Your task to perform on an android device: See recent photos Image 0: 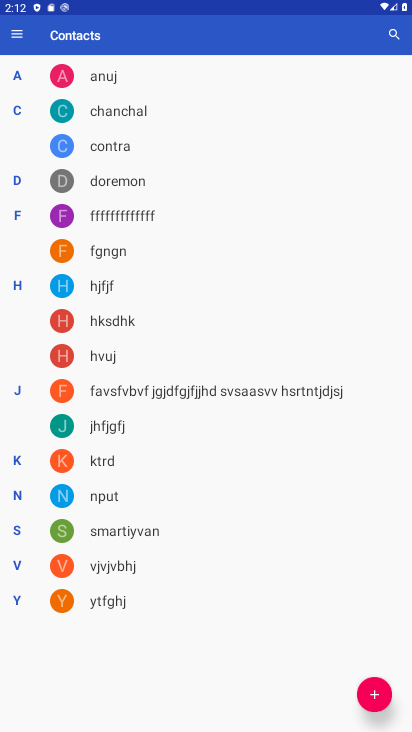
Step 0: press home button
Your task to perform on an android device: See recent photos Image 1: 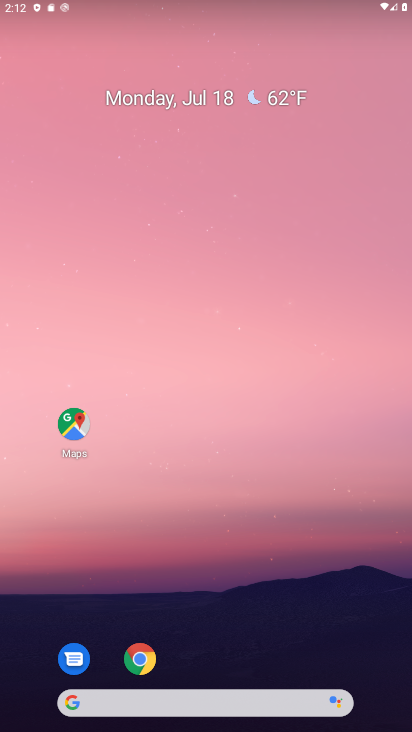
Step 1: drag from (267, 639) to (365, 162)
Your task to perform on an android device: See recent photos Image 2: 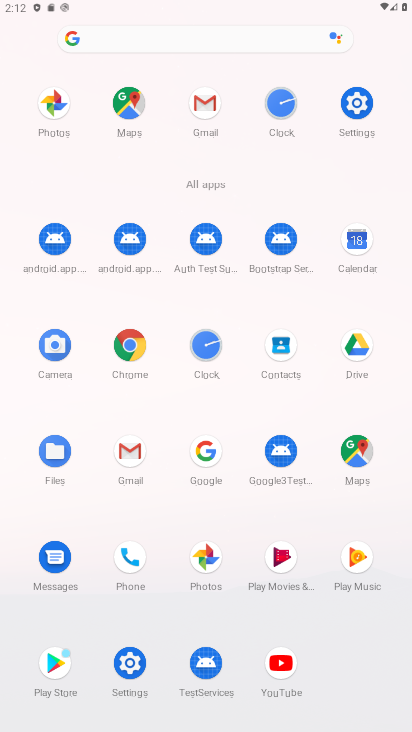
Step 2: click (214, 549)
Your task to perform on an android device: See recent photos Image 3: 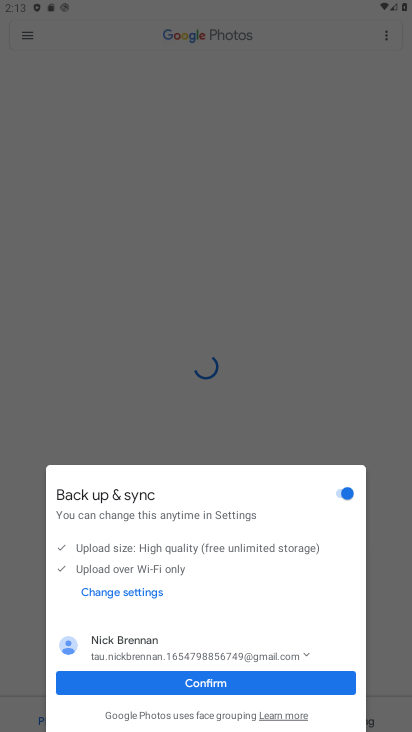
Step 3: click (216, 686)
Your task to perform on an android device: See recent photos Image 4: 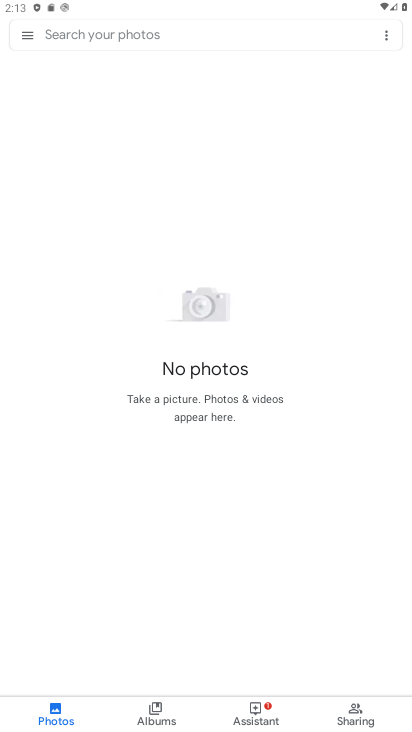
Step 4: task complete